Your task to perform on an android device: uninstall "Etsy: Buy & Sell Unique Items" Image 0: 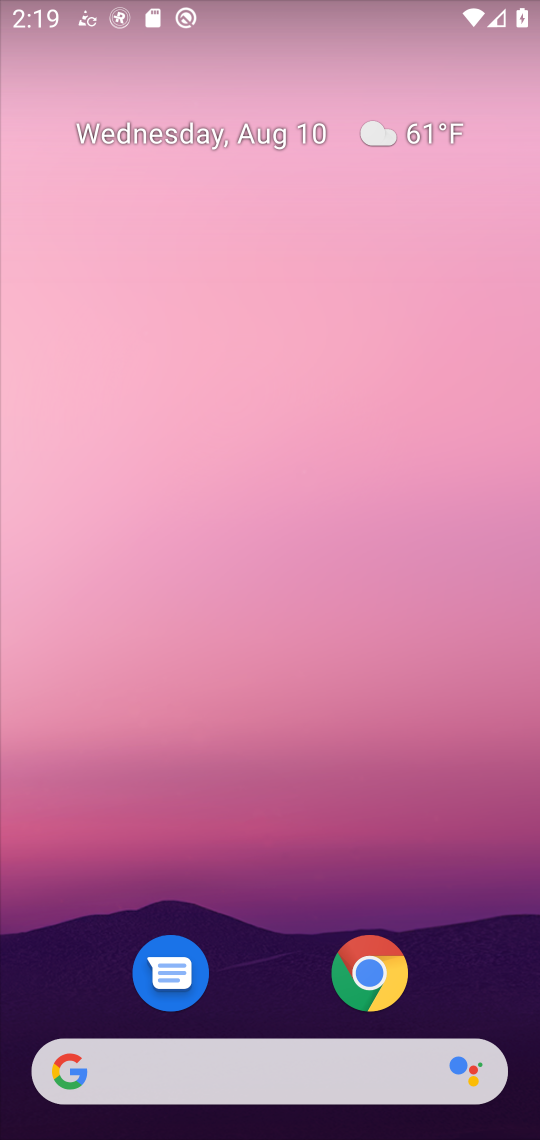
Step 0: drag from (233, 1032) to (303, 111)
Your task to perform on an android device: uninstall "Etsy: Buy & Sell Unique Items" Image 1: 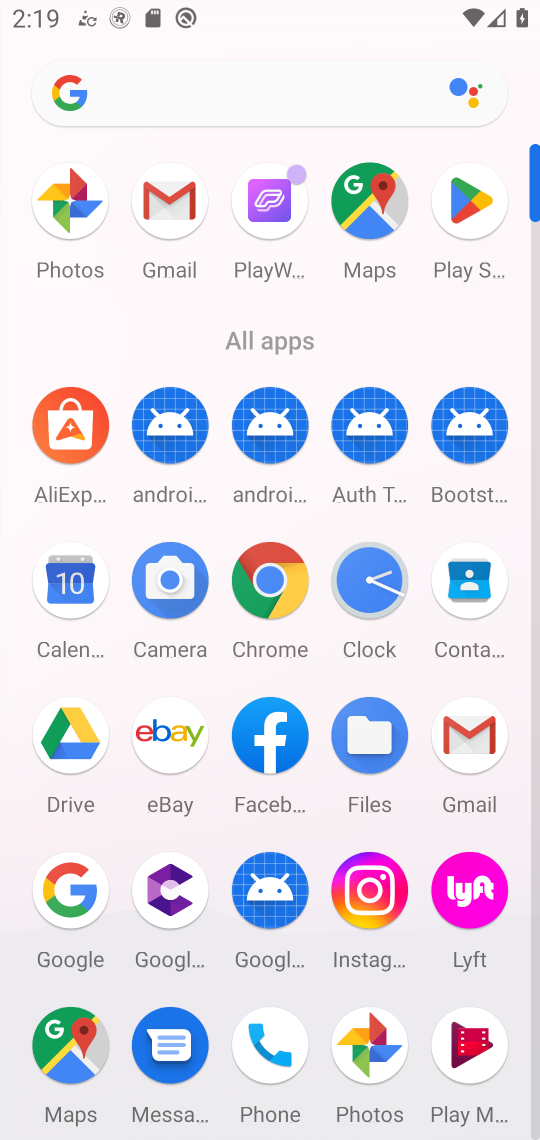
Step 1: click (483, 200)
Your task to perform on an android device: uninstall "Etsy: Buy & Sell Unique Items" Image 2: 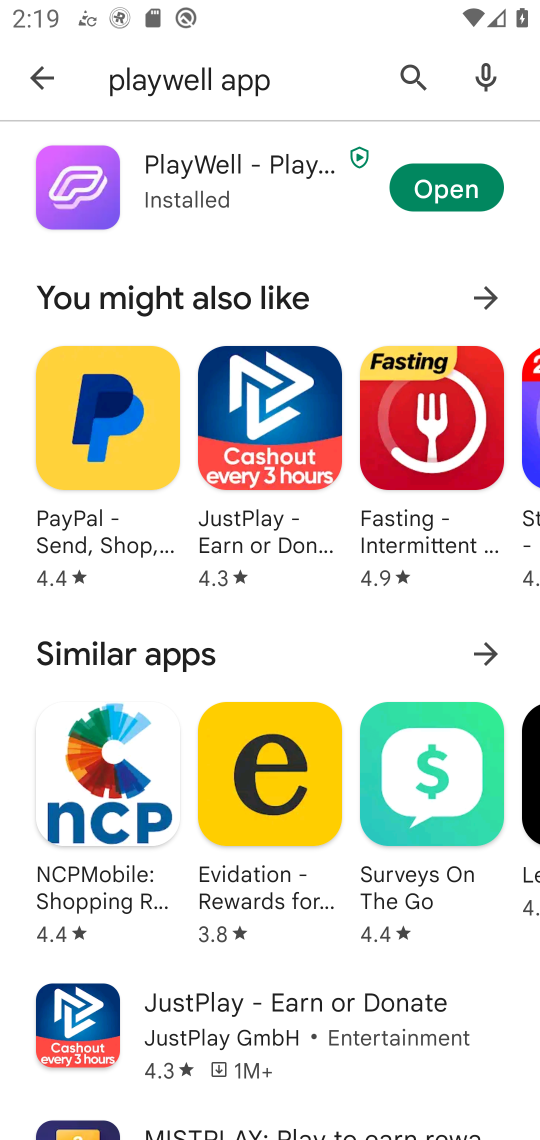
Step 2: click (40, 71)
Your task to perform on an android device: uninstall "Etsy: Buy & Sell Unique Items" Image 3: 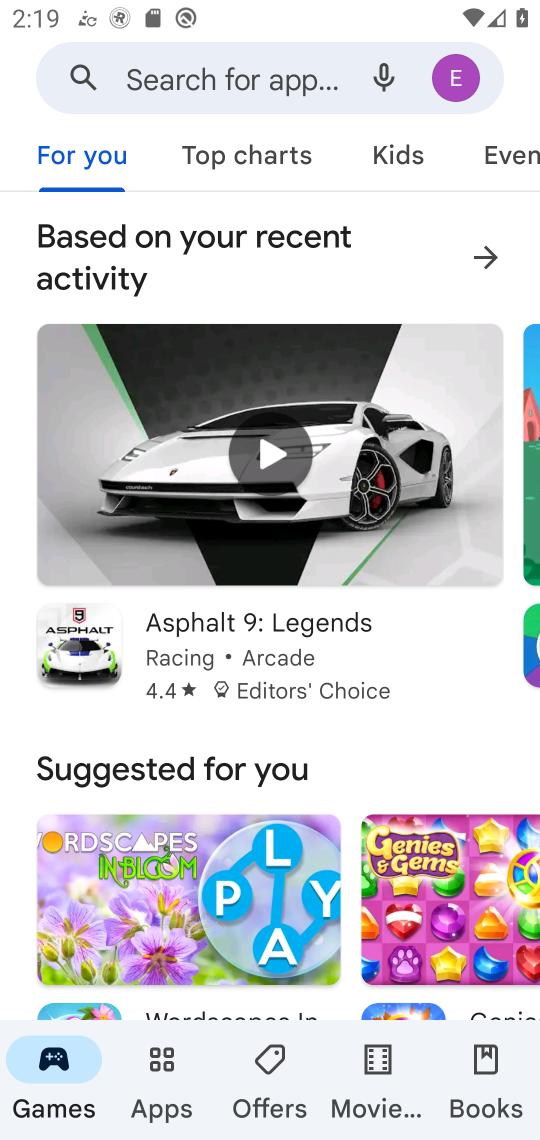
Step 3: click (158, 51)
Your task to perform on an android device: uninstall "Etsy: Buy & Sell Unique Items" Image 4: 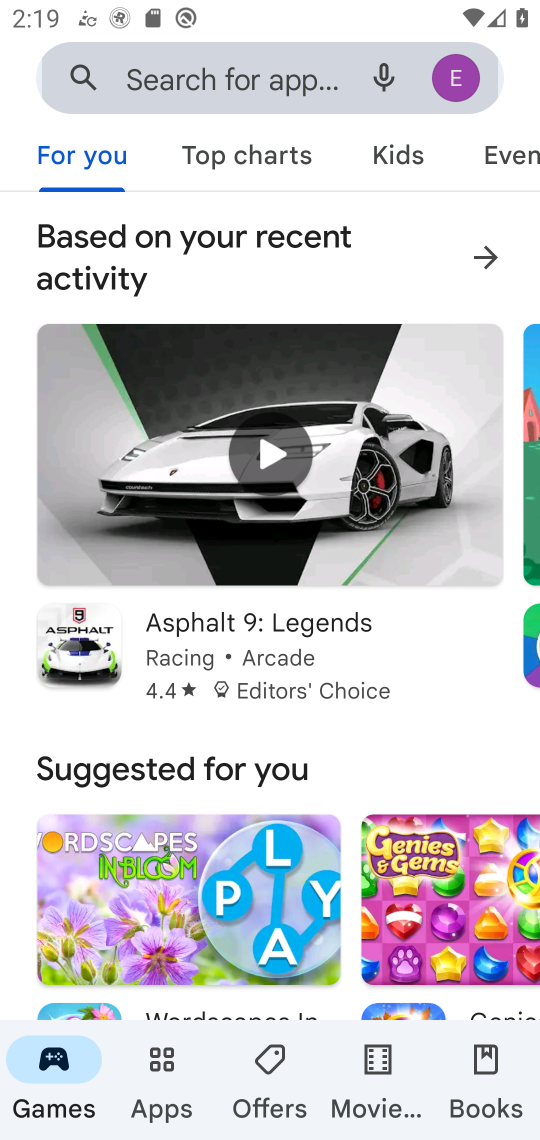
Step 4: click (166, 68)
Your task to perform on an android device: uninstall "Etsy: Buy & Sell Unique Items" Image 5: 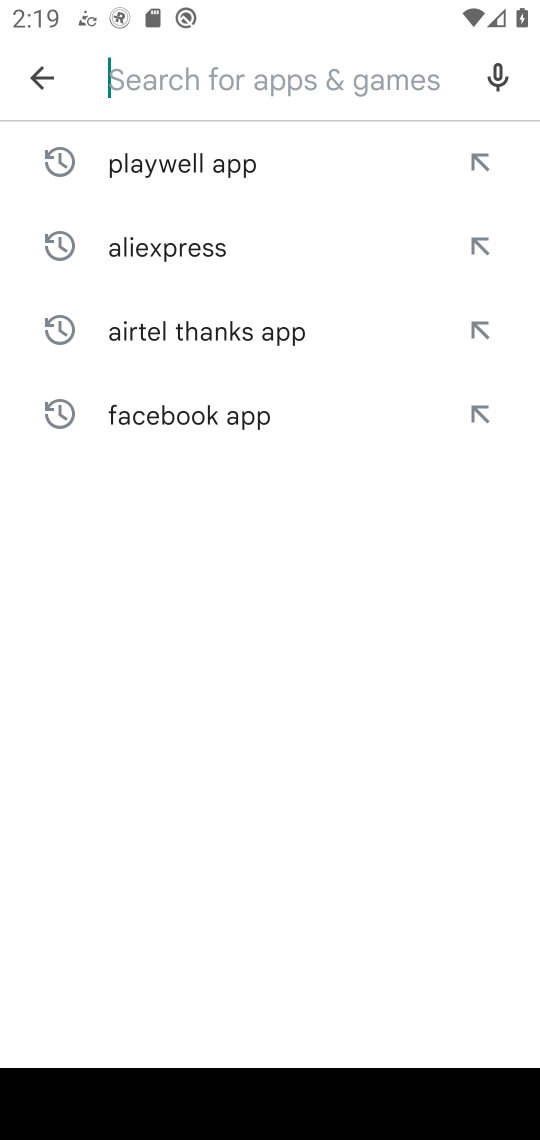
Step 5: type "esty"
Your task to perform on an android device: uninstall "Etsy: Buy & Sell Unique Items" Image 6: 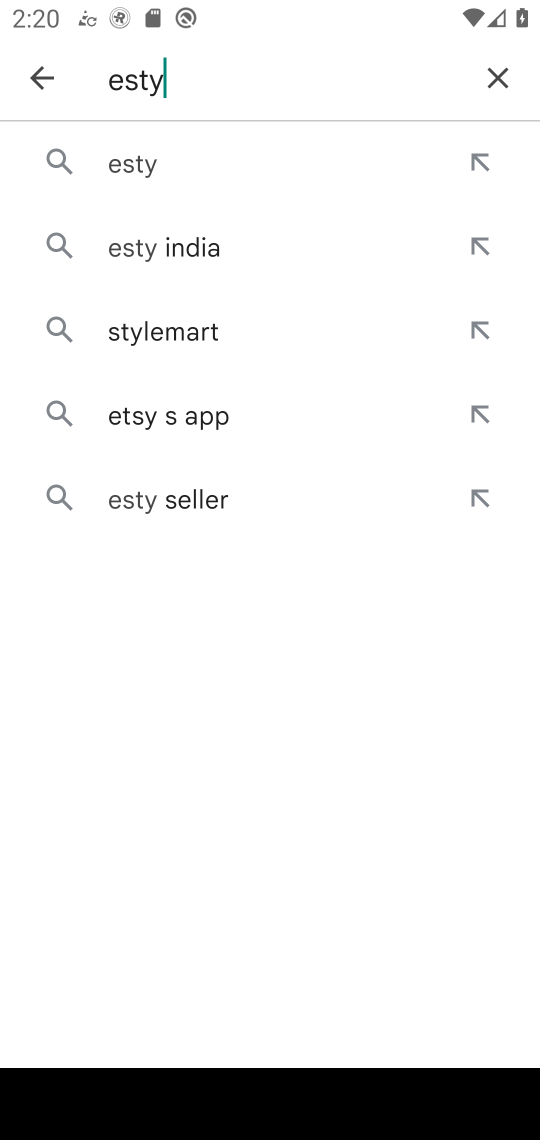
Step 6: click (151, 170)
Your task to perform on an android device: uninstall "Etsy: Buy & Sell Unique Items" Image 7: 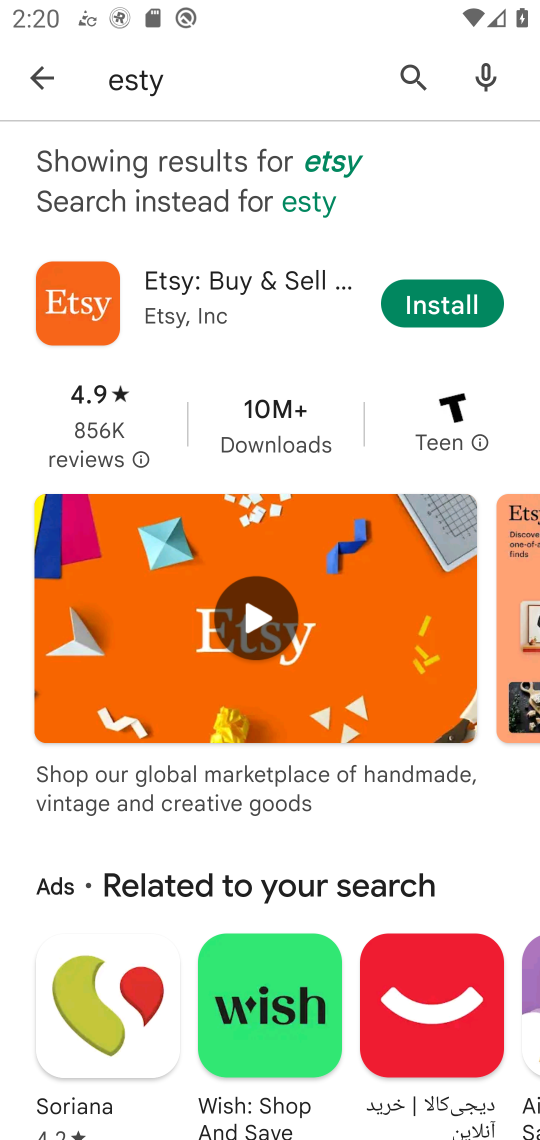
Step 7: click (433, 300)
Your task to perform on an android device: uninstall "Etsy: Buy & Sell Unique Items" Image 8: 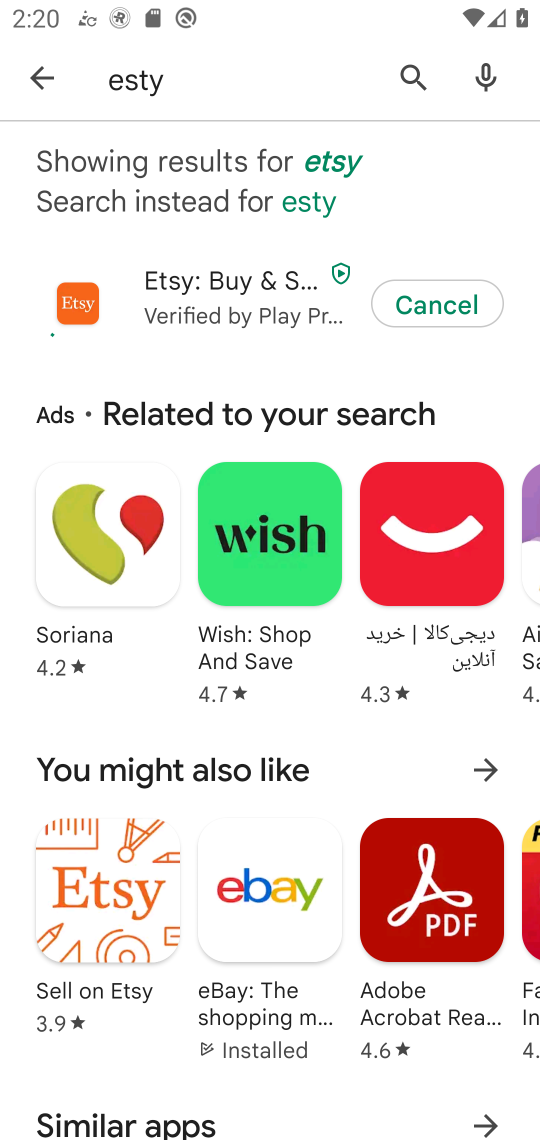
Step 8: click (416, 297)
Your task to perform on an android device: uninstall "Etsy: Buy & Sell Unique Items" Image 9: 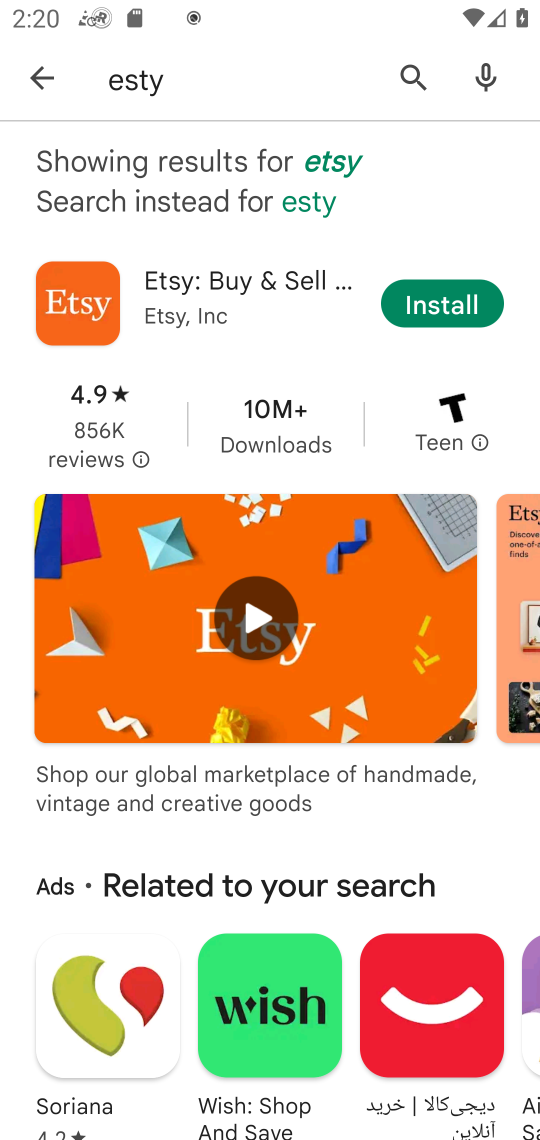
Step 9: click (228, 276)
Your task to perform on an android device: uninstall "Etsy: Buy & Sell Unique Items" Image 10: 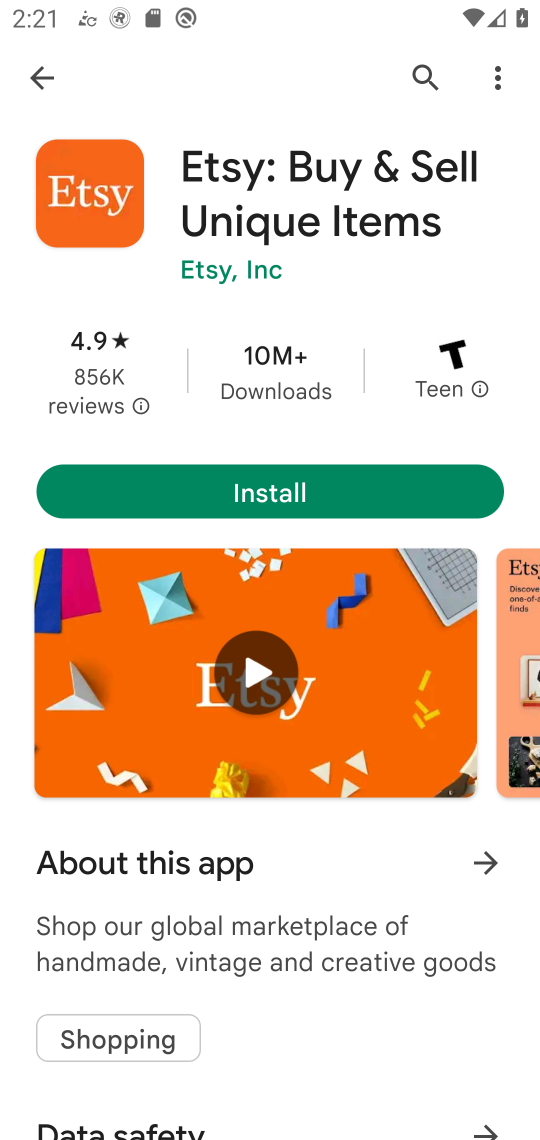
Step 10: task complete